Your task to perform on an android device: Go to Amazon Image 0: 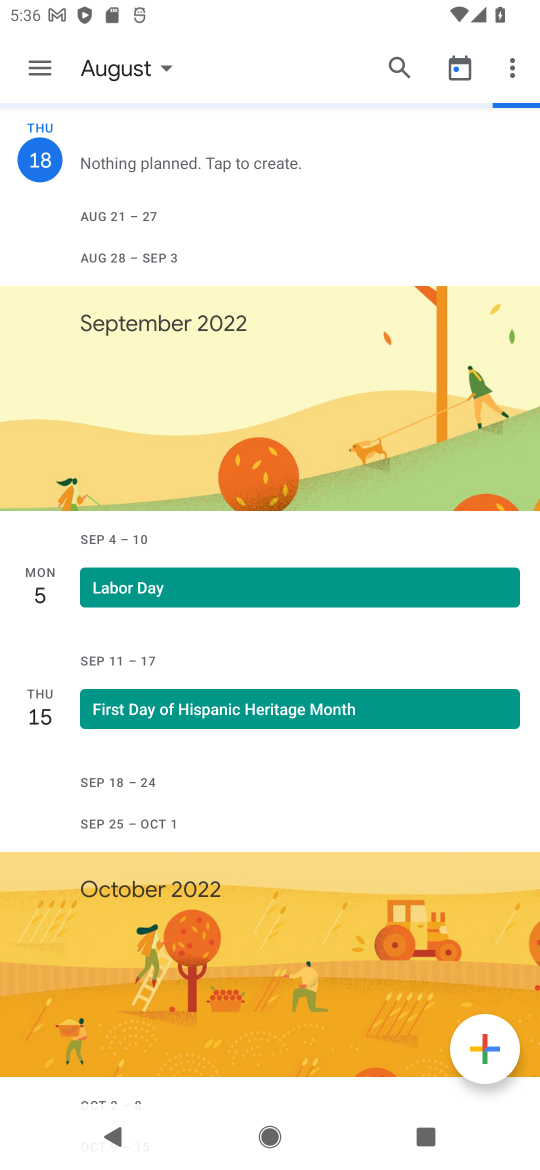
Step 0: press home button
Your task to perform on an android device: Go to Amazon Image 1: 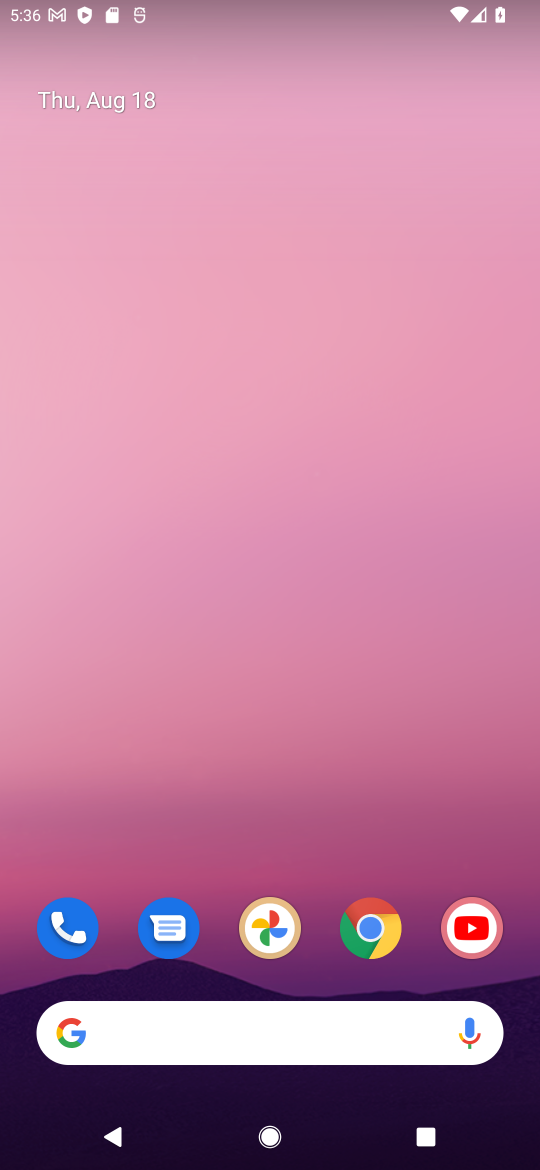
Step 1: drag from (296, 733) to (303, 48)
Your task to perform on an android device: Go to Amazon Image 2: 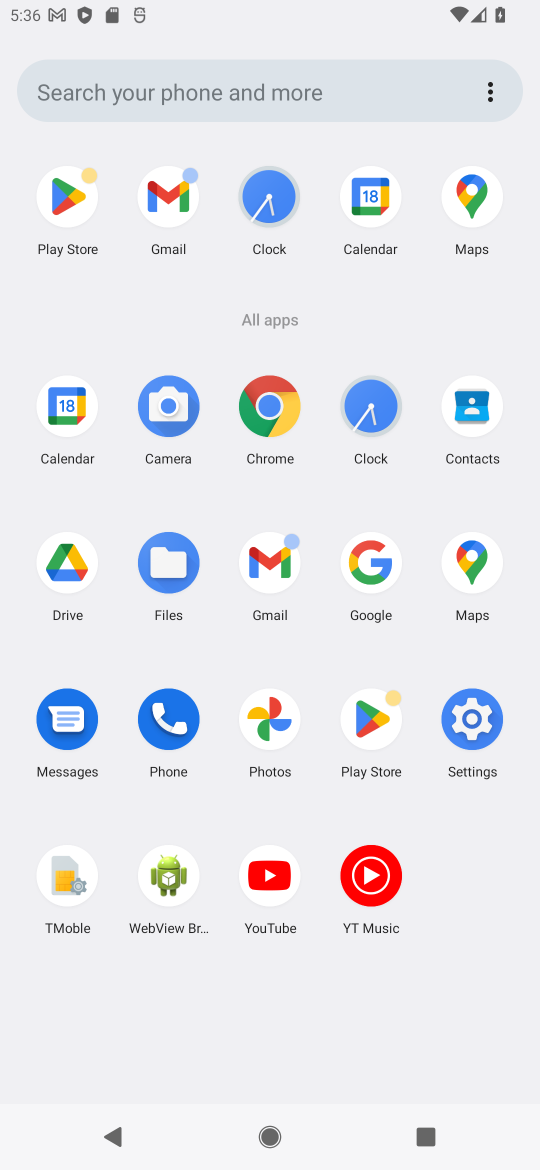
Step 2: click (268, 400)
Your task to perform on an android device: Go to Amazon Image 3: 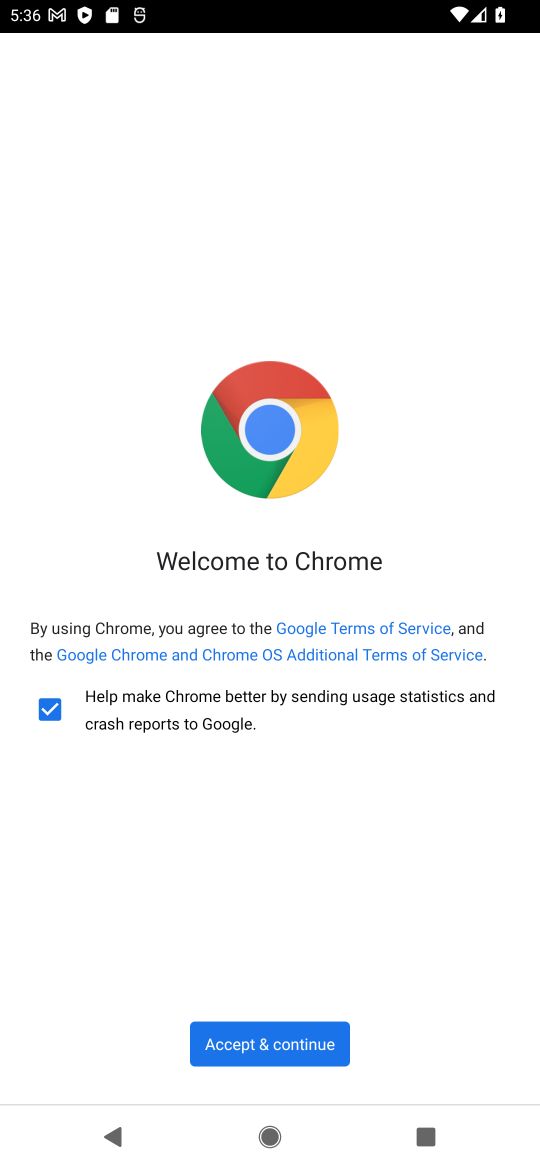
Step 3: click (316, 1030)
Your task to perform on an android device: Go to Amazon Image 4: 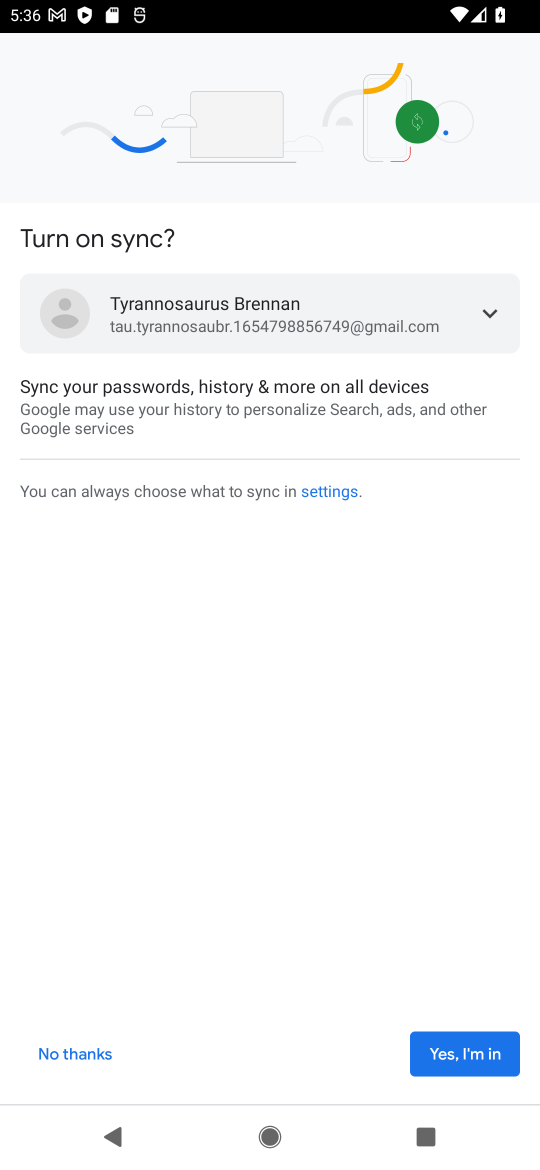
Step 4: click (421, 1056)
Your task to perform on an android device: Go to Amazon Image 5: 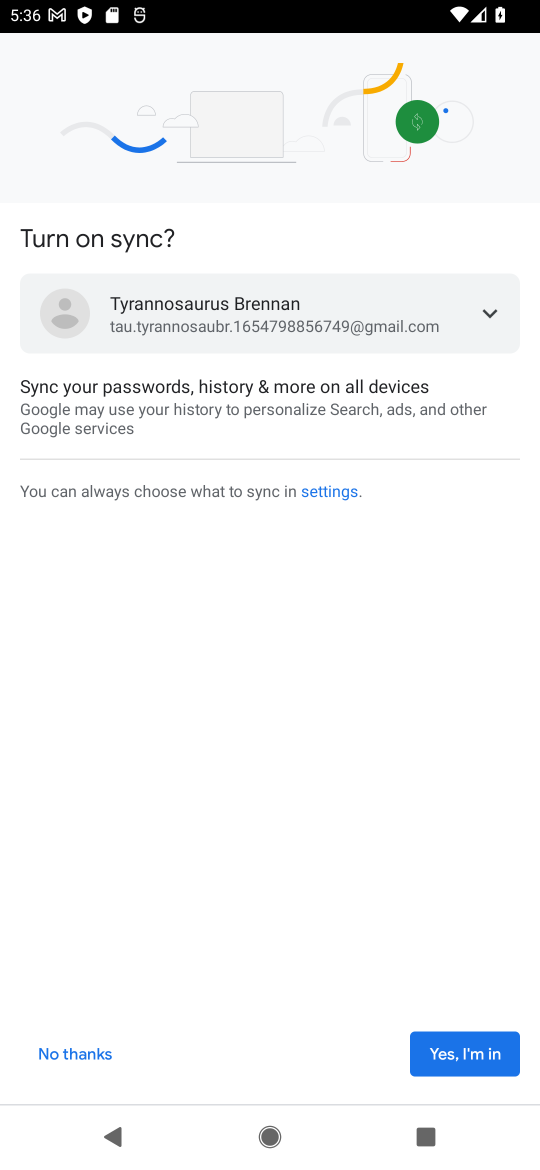
Step 5: click (450, 1042)
Your task to perform on an android device: Go to Amazon Image 6: 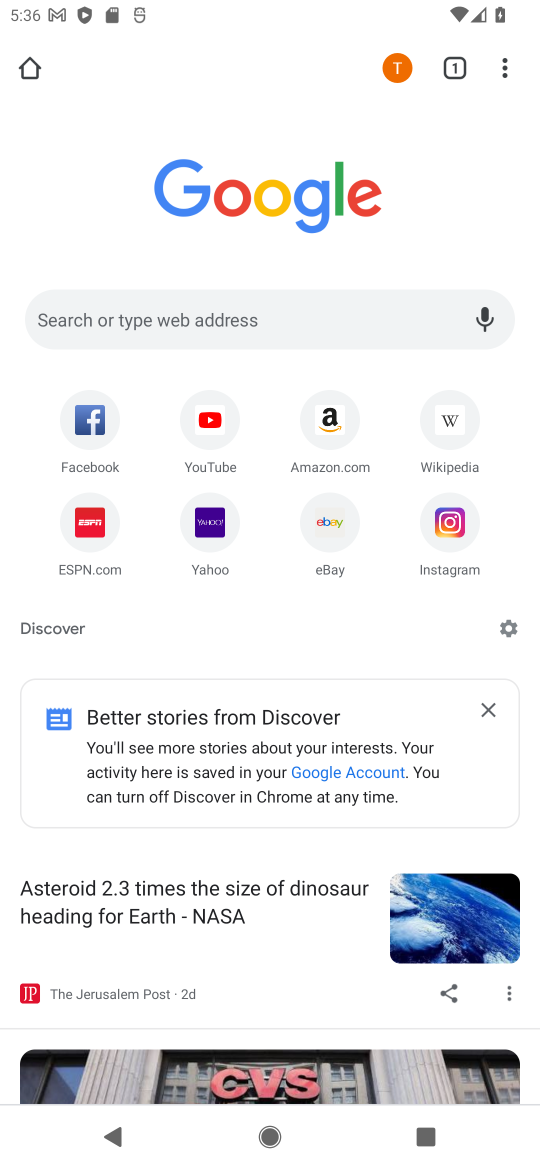
Step 6: click (332, 403)
Your task to perform on an android device: Go to Amazon Image 7: 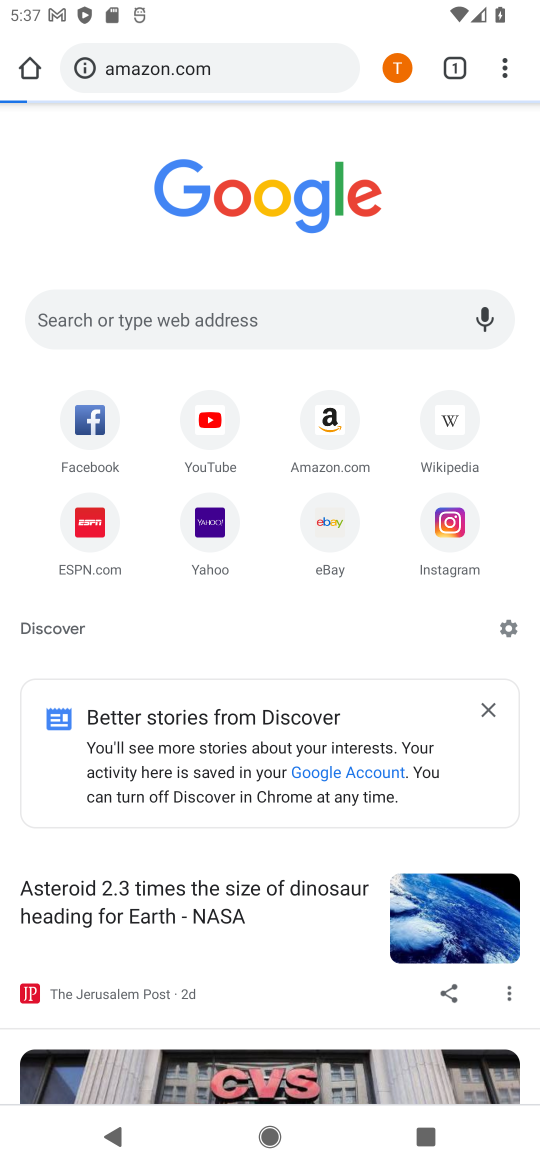
Step 7: click (361, 588)
Your task to perform on an android device: Go to Amazon Image 8: 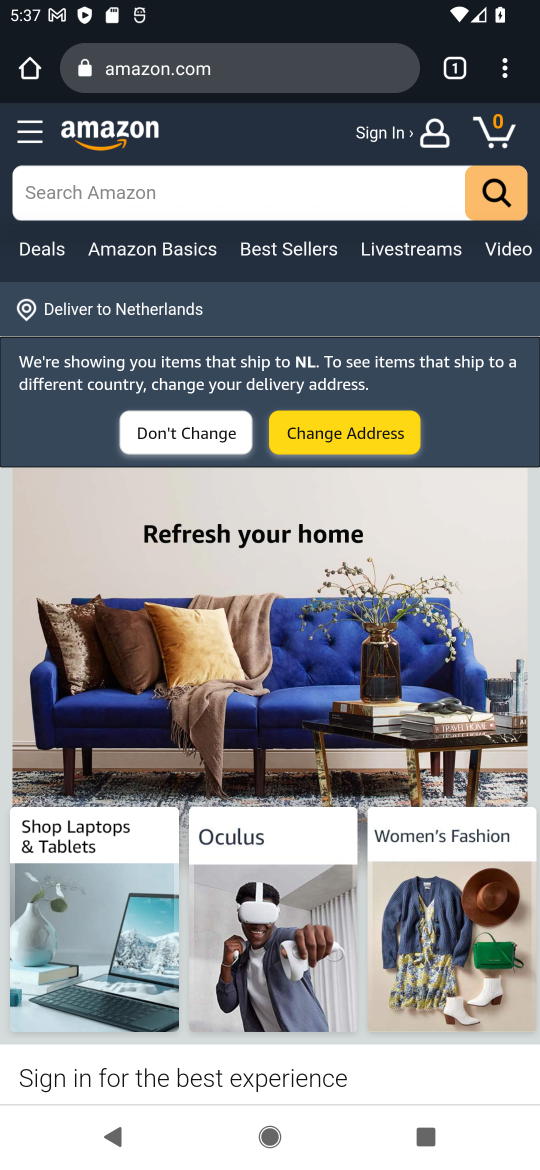
Step 8: task complete